Your task to perform on an android device: toggle translation in the chrome app Image 0: 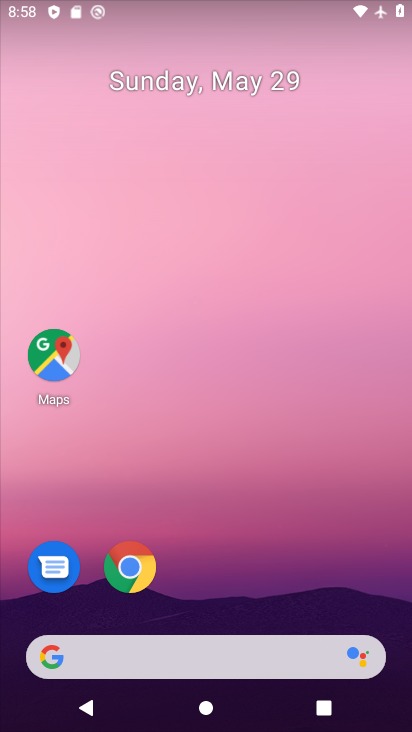
Step 0: click (130, 565)
Your task to perform on an android device: toggle translation in the chrome app Image 1: 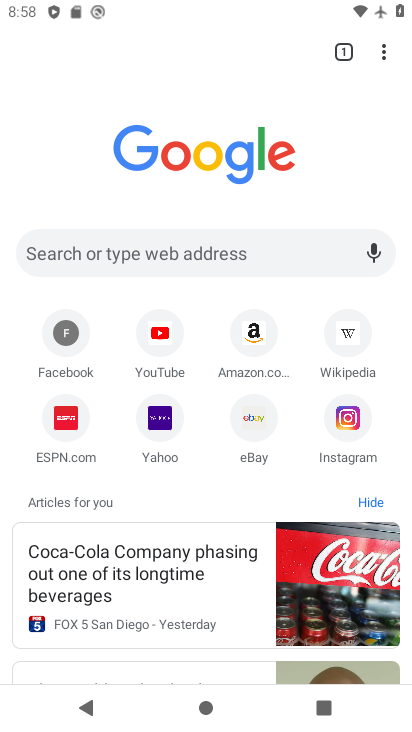
Step 1: click (382, 55)
Your task to perform on an android device: toggle translation in the chrome app Image 2: 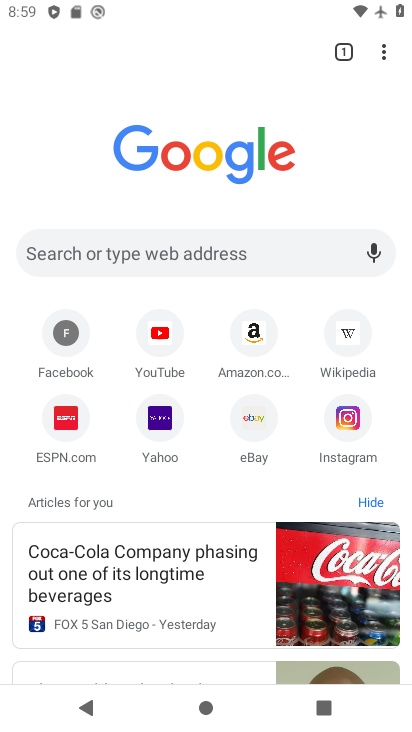
Step 2: click (385, 57)
Your task to perform on an android device: toggle translation in the chrome app Image 3: 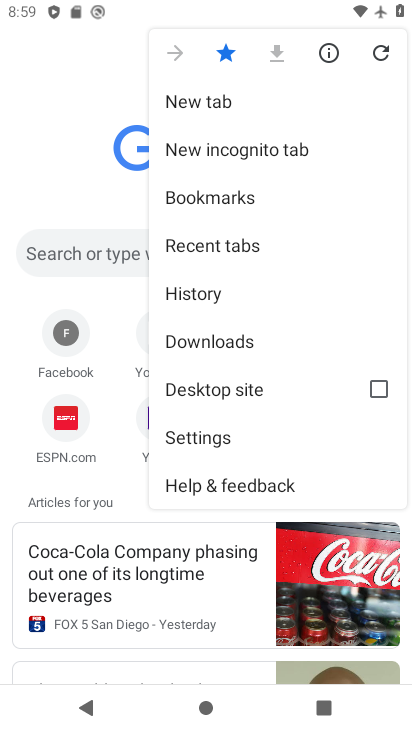
Step 3: click (201, 435)
Your task to perform on an android device: toggle translation in the chrome app Image 4: 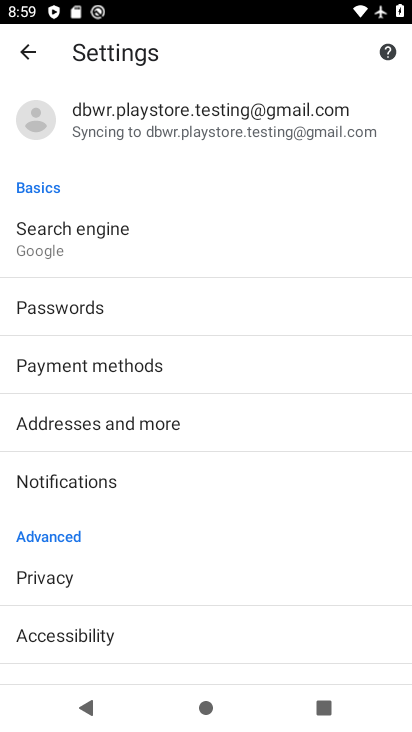
Step 4: drag from (175, 645) to (199, 200)
Your task to perform on an android device: toggle translation in the chrome app Image 5: 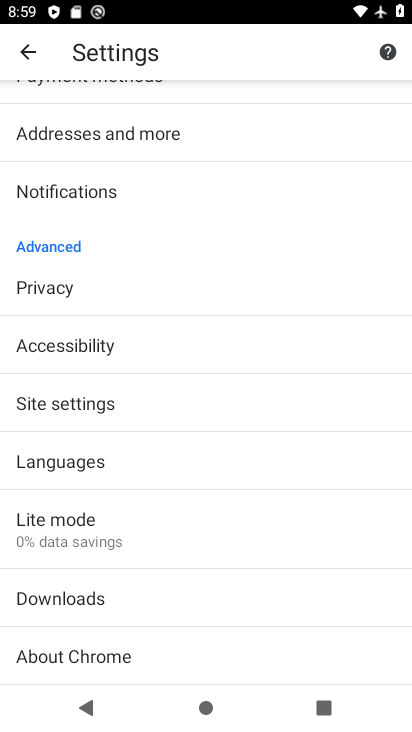
Step 5: click (42, 470)
Your task to perform on an android device: toggle translation in the chrome app Image 6: 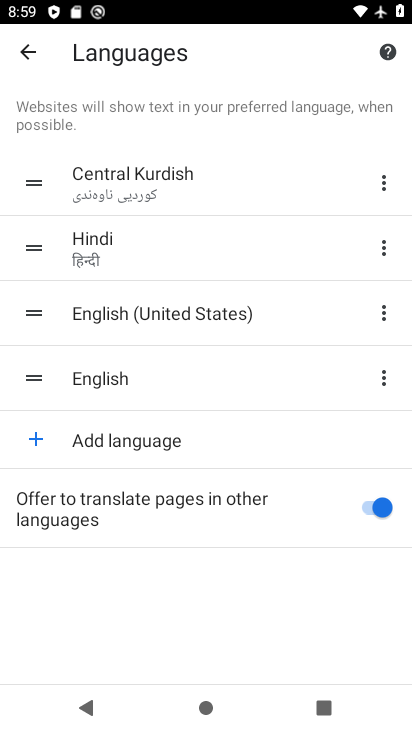
Step 6: click (369, 507)
Your task to perform on an android device: toggle translation in the chrome app Image 7: 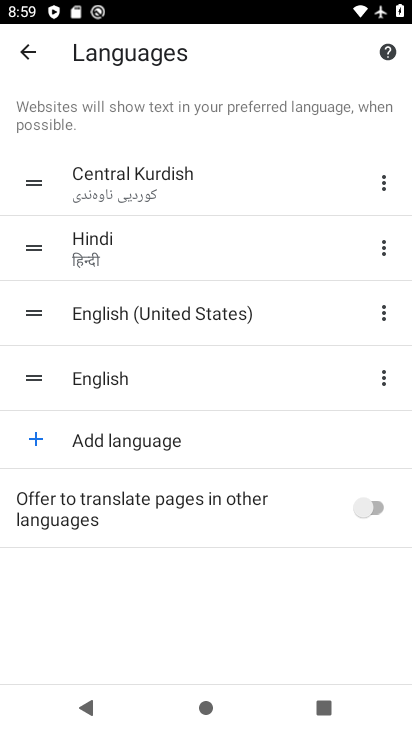
Step 7: task complete